Your task to perform on an android device: turn on wifi Image 0: 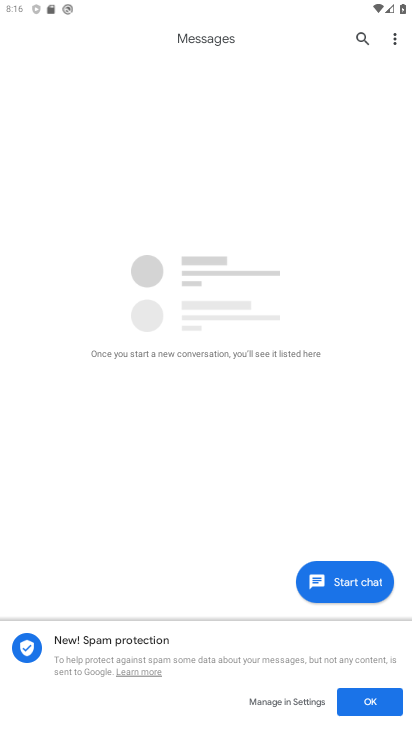
Step 0: press home button
Your task to perform on an android device: turn on wifi Image 1: 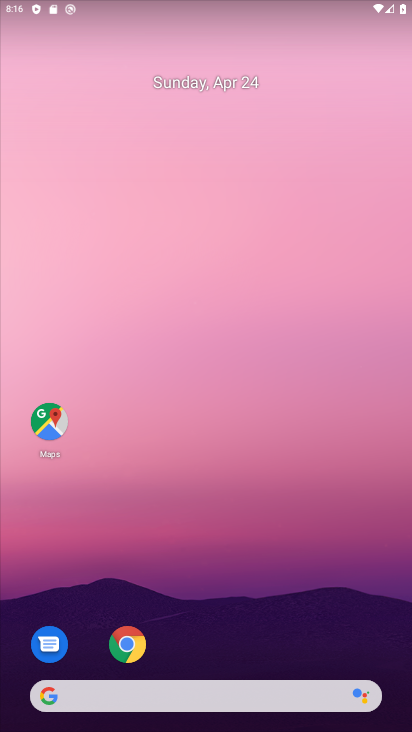
Step 1: drag from (265, 646) to (250, 424)
Your task to perform on an android device: turn on wifi Image 2: 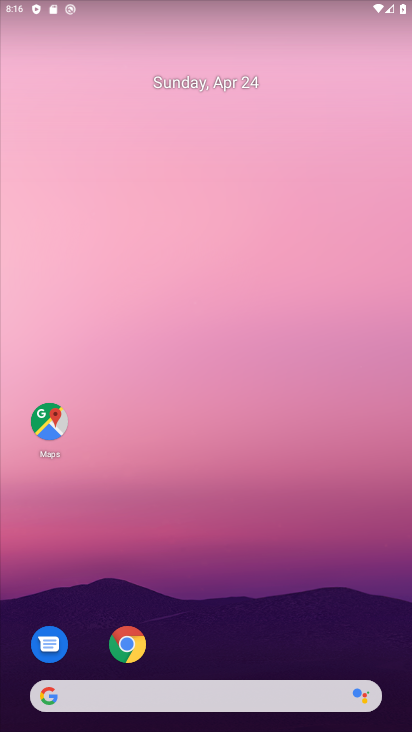
Step 2: drag from (211, 661) to (155, 233)
Your task to perform on an android device: turn on wifi Image 3: 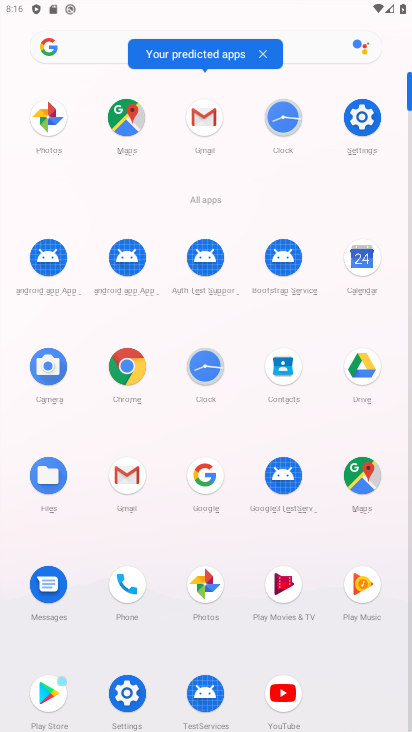
Step 3: click (359, 128)
Your task to perform on an android device: turn on wifi Image 4: 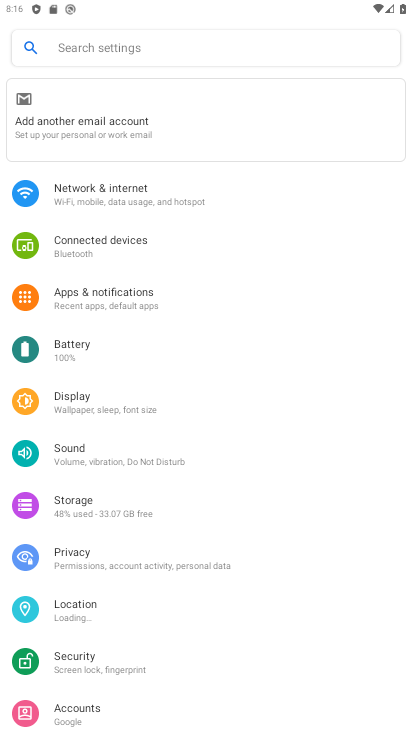
Step 4: click (276, 199)
Your task to perform on an android device: turn on wifi Image 5: 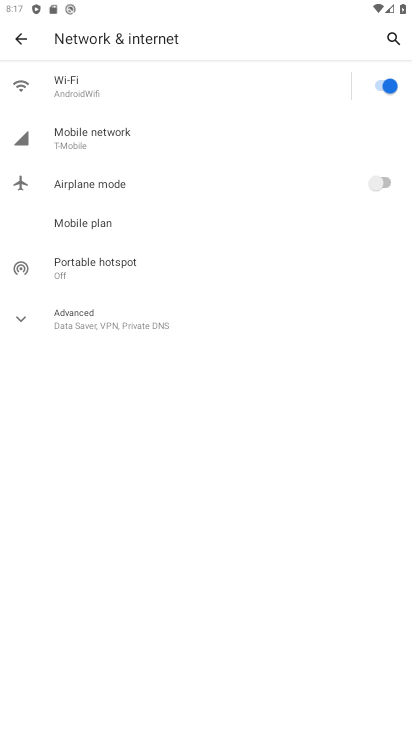
Step 5: task complete